Your task to perform on an android device: add a contact Image 0: 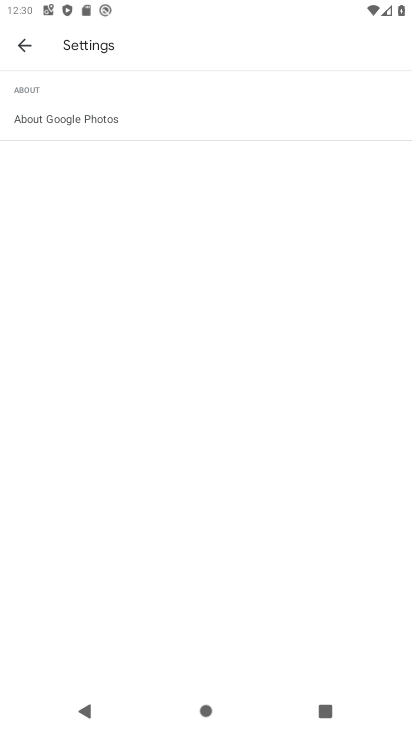
Step 0: press home button
Your task to perform on an android device: add a contact Image 1: 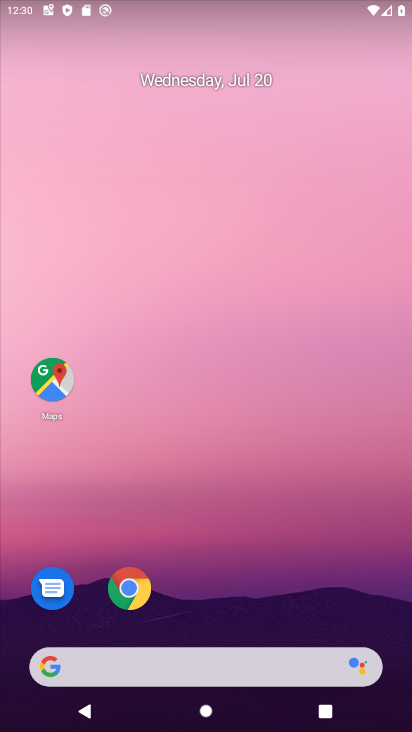
Step 1: drag from (232, 600) to (177, 86)
Your task to perform on an android device: add a contact Image 2: 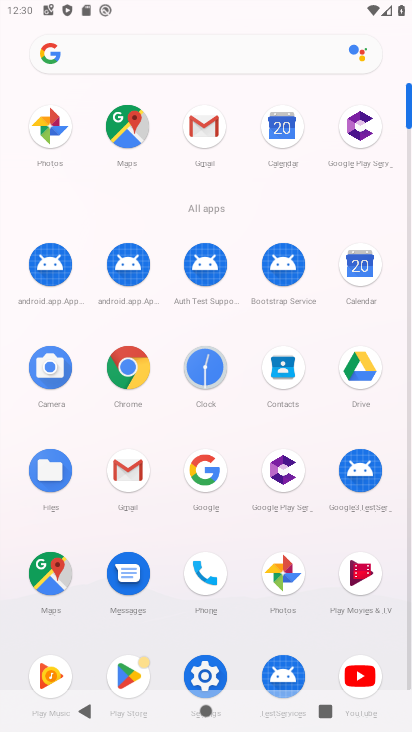
Step 2: click (284, 367)
Your task to perform on an android device: add a contact Image 3: 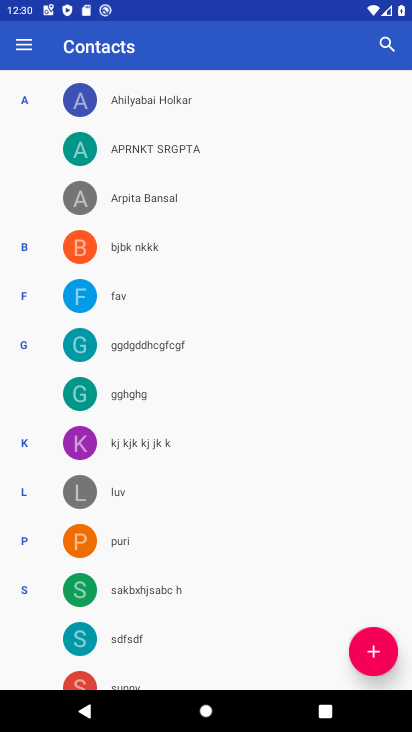
Step 3: click (365, 650)
Your task to perform on an android device: add a contact Image 4: 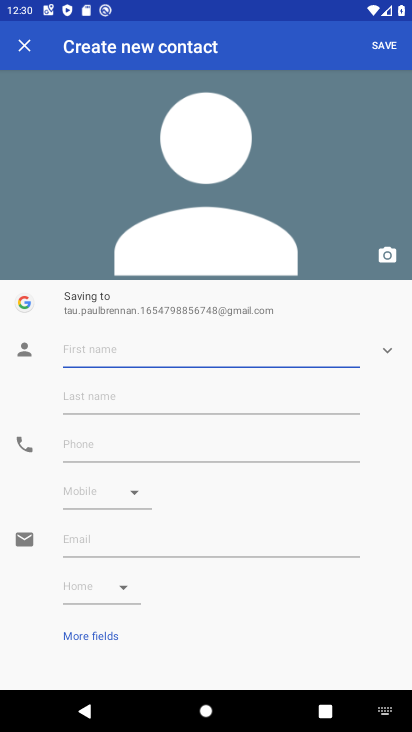
Step 4: type "waertdyui"
Your task to perform on an android device: add a contact Image 5: 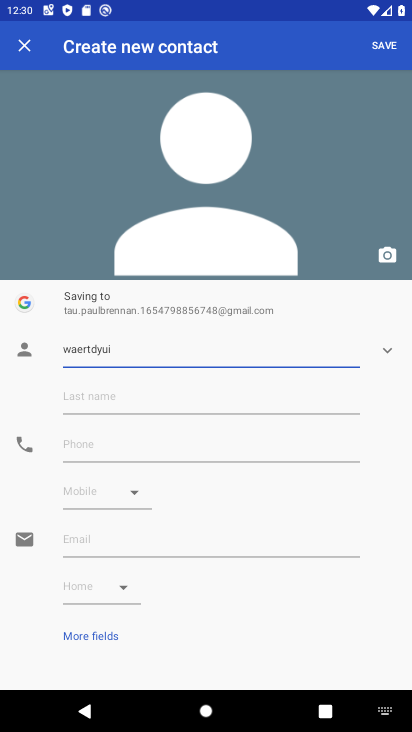
Step 5: click (260, 453)
Your task to perform on an android device: add a contact Image 6: 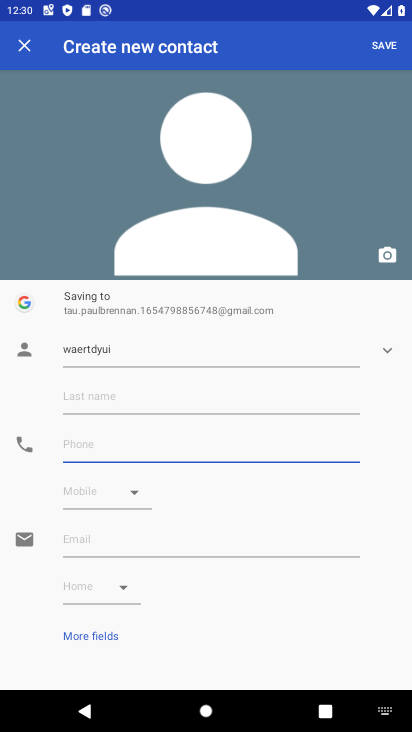
Step 6: type "98765678"
Your task to perform on an android device: add a contact Image 7: 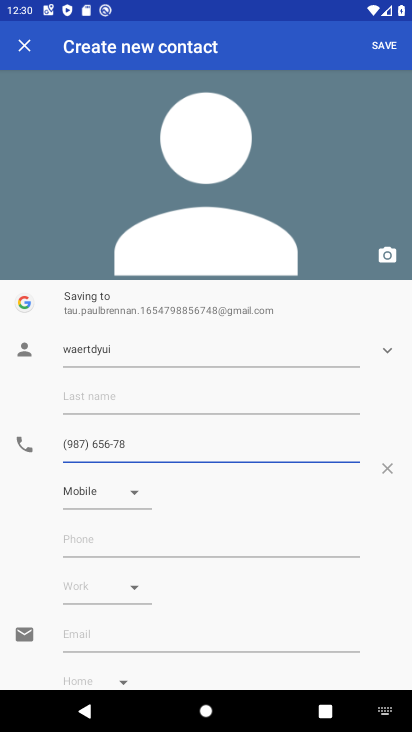
Step 7: click (388, 38)
Your task to perform on an android device: add a contact Image 8: 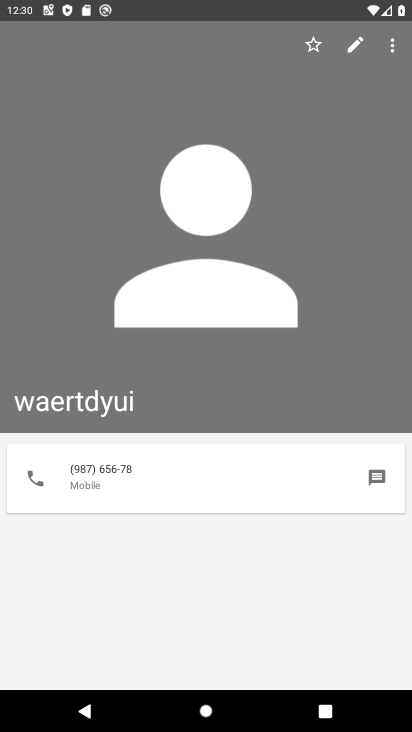
Step 8: task complete